Your task to perform on an android device: View the shopping cart on ebay.com. Image 0: 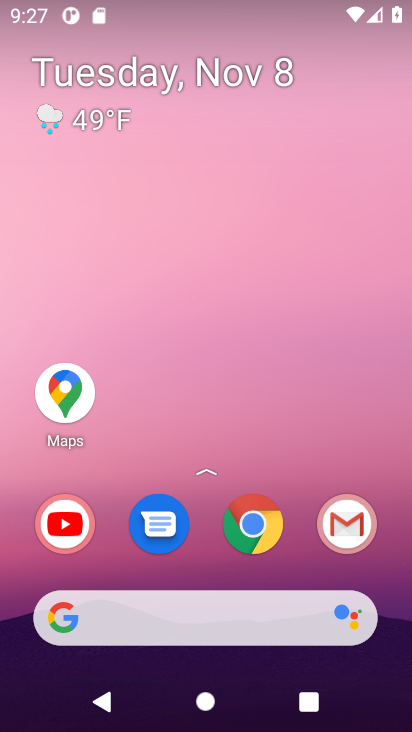
Step 0: click (257, 518)
Your task to perform on an android device: View the shopping cart on ebay.com. Image 1: 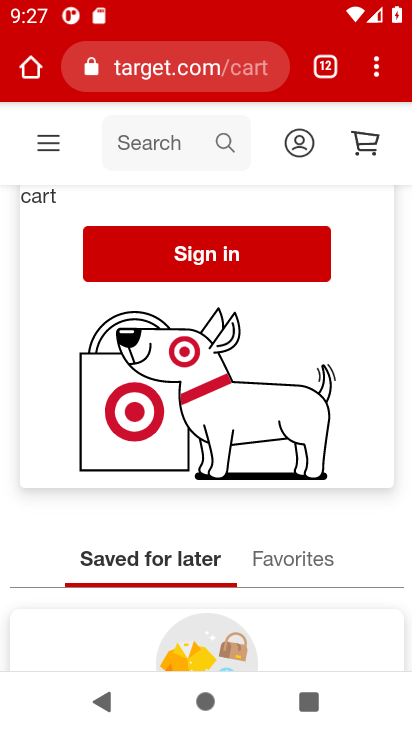
Step 1: click (155, 69)
Your task to perform on an android device: View the shopping cart on ebay.com. Image 2: 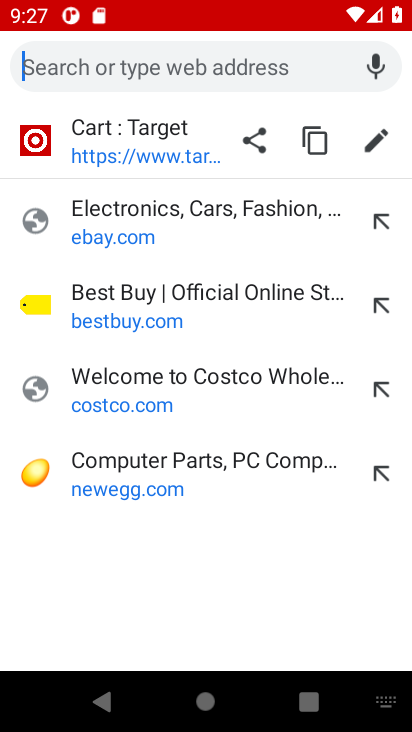
Step 2: click (110, 229)
Your task to perform on an android device: View the shopping cart on ebay.com. Image 3: 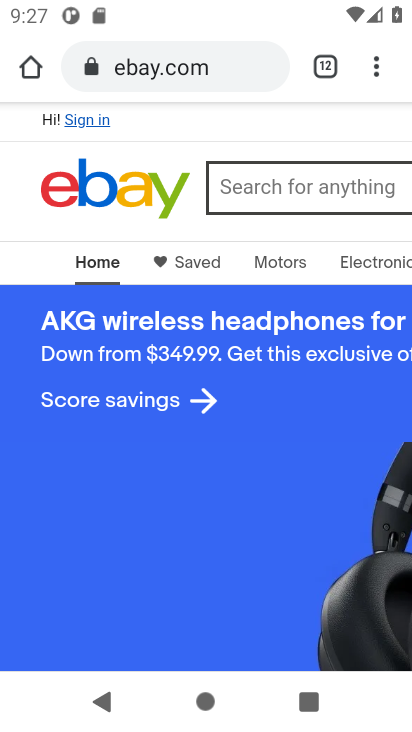
Step 3: drag from (364, 225) to (32, 240)
Your task to perform on an android device: View the shopping cart on ebay.com. Image 4: 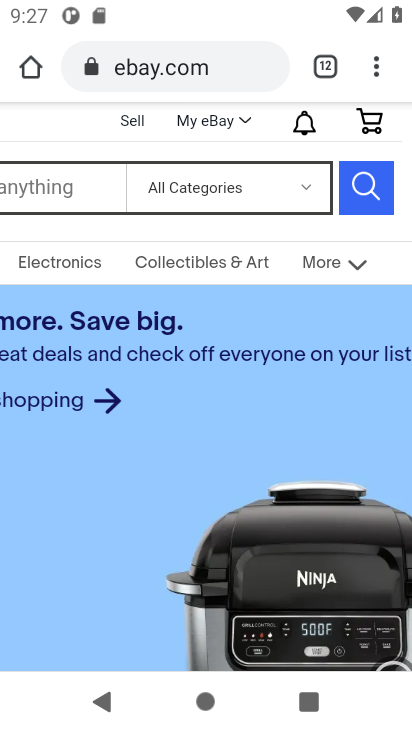
Step 4: click (377, 120)
Your task to perform on an android device: View the shopping cart on ebay.com. Image 5: 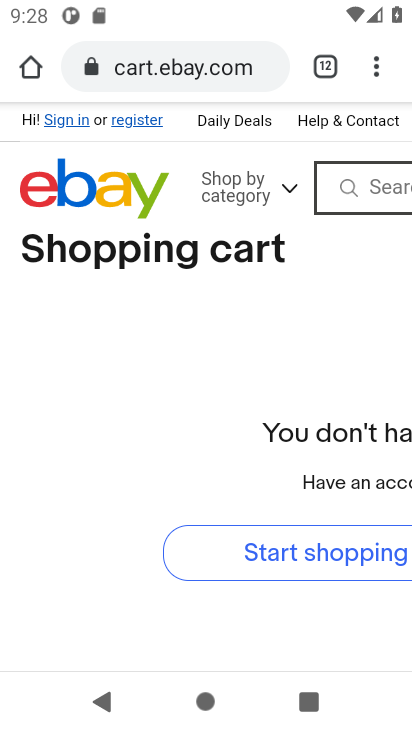
Step 5: task complete